Your task to perform on an android device: Open eBay Image 0: 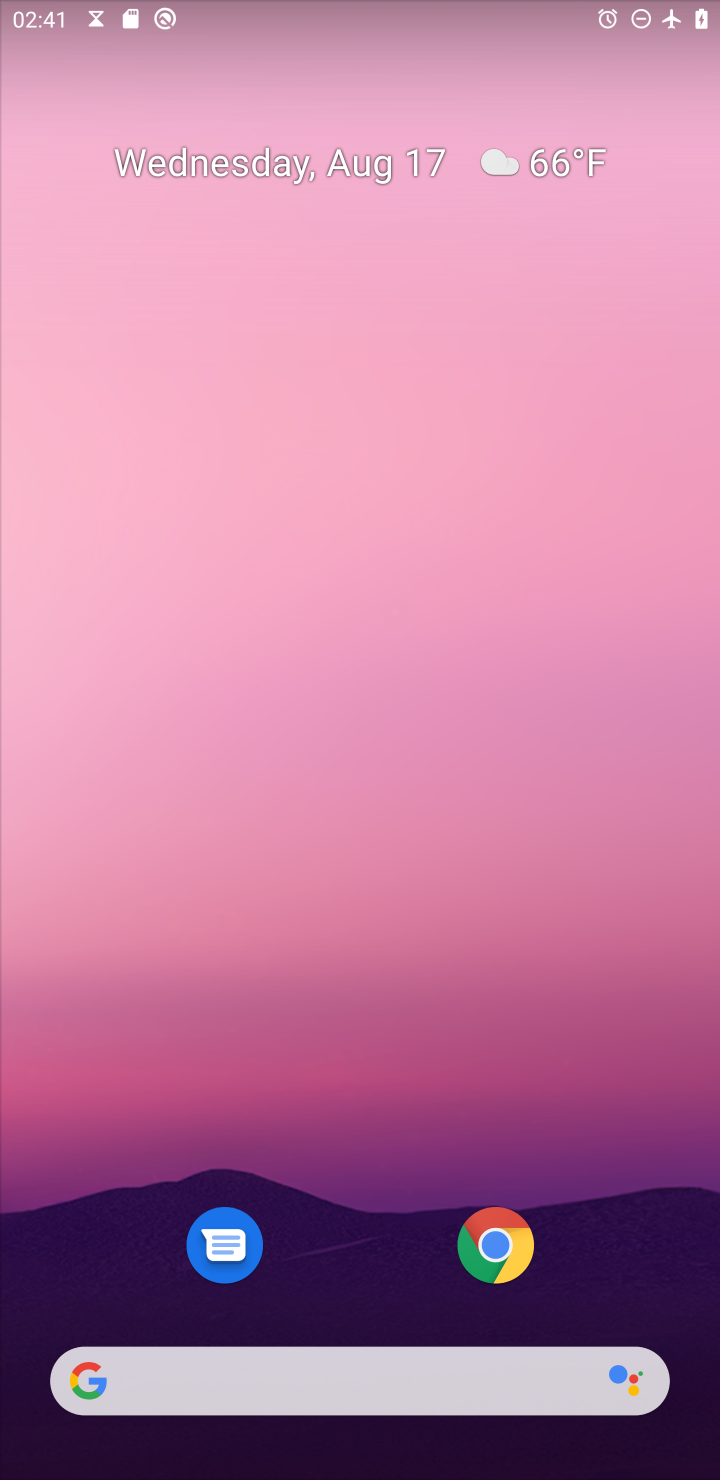
Step 0: click (491, 1240)
Your task to perform on an android device: Open eBay Image 1: 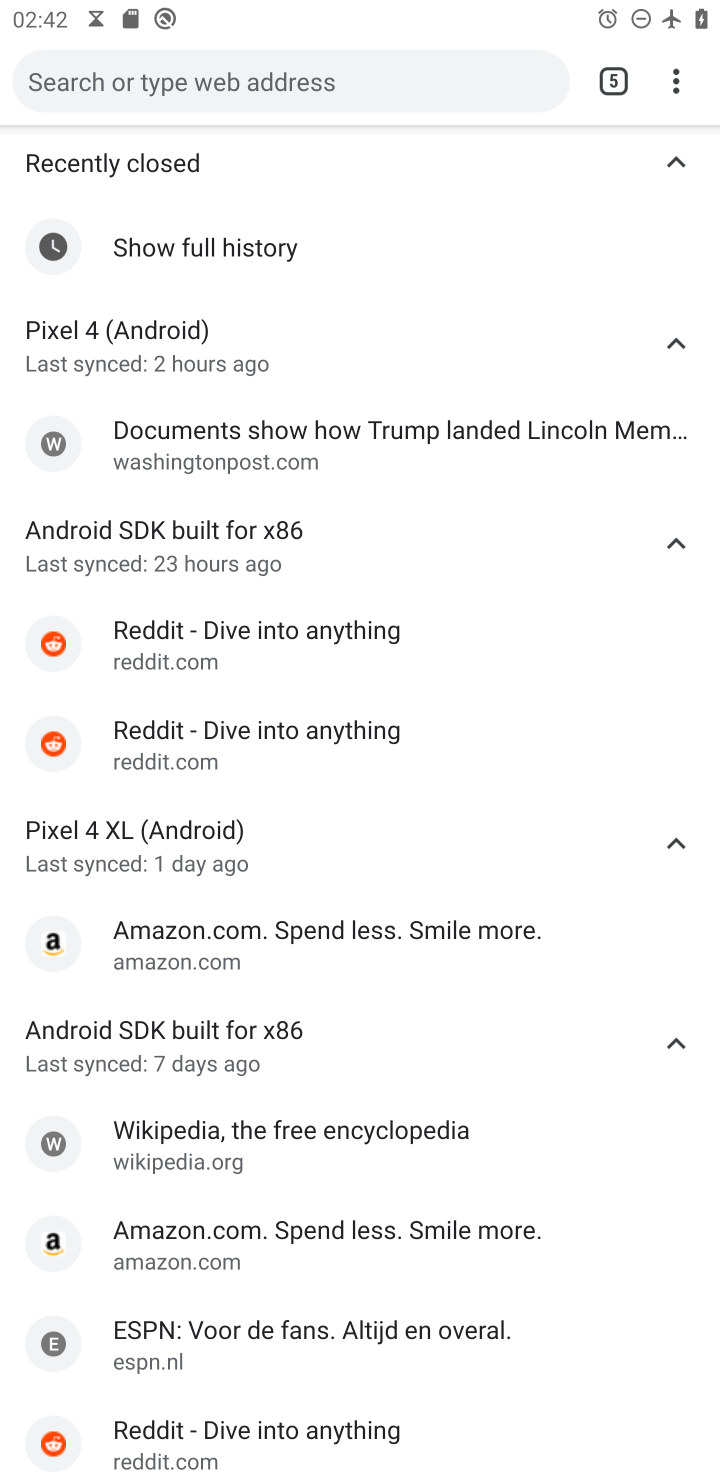
Step 1: click (676, 89)
Your task to perform on an android device: Open eBay Image 2: 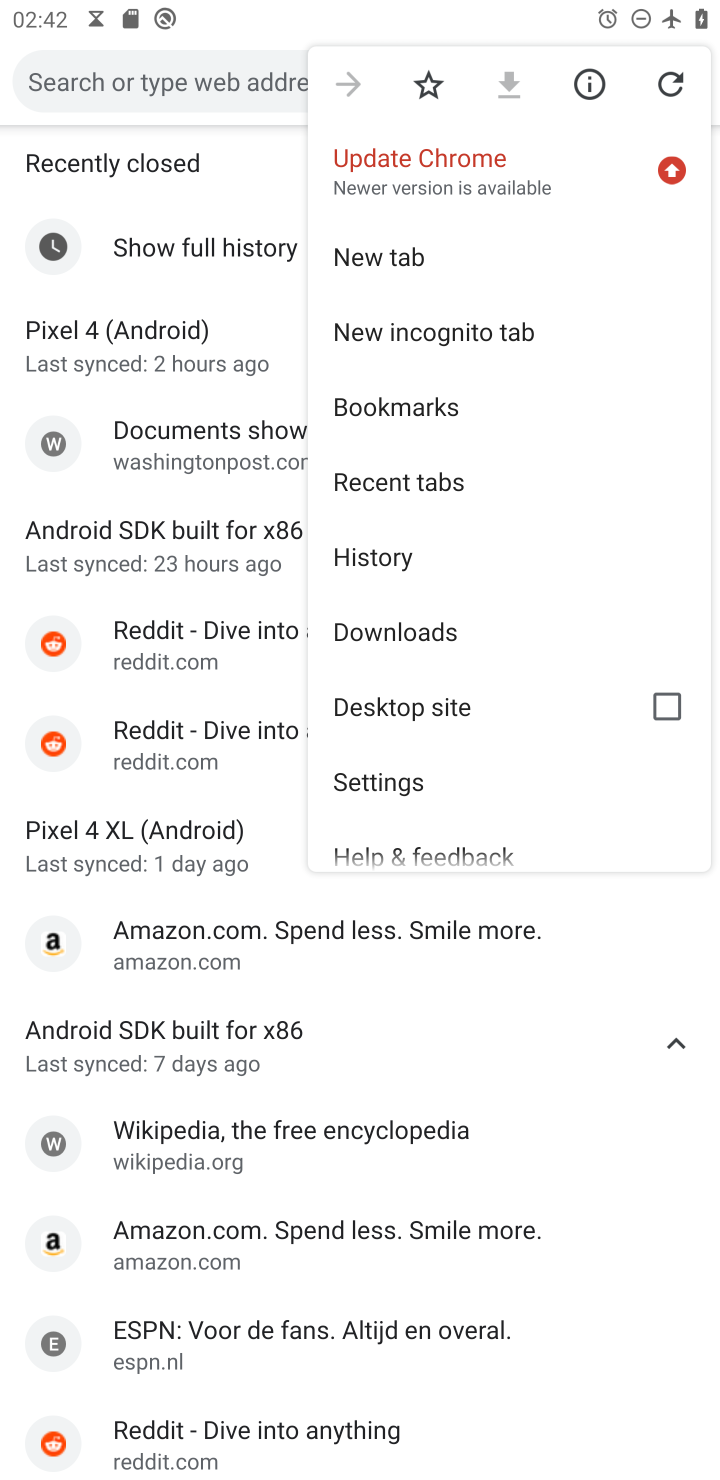
Step 2: drag from (546, 129) to (383, 219)
Your task to perform on an android device: Open eBay Image 3: 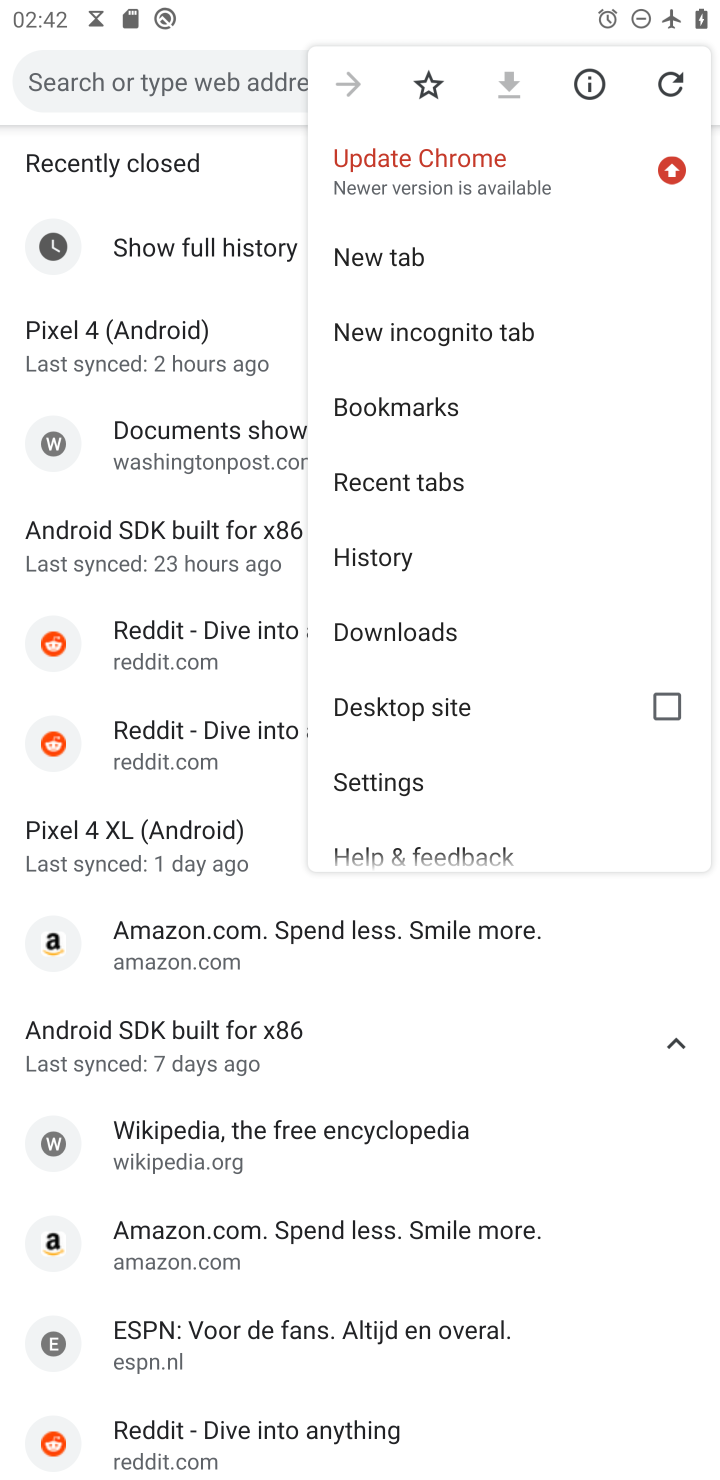
Step 3: click (377, 265)
Your task to perform on an android device: Open eBay Image 4: 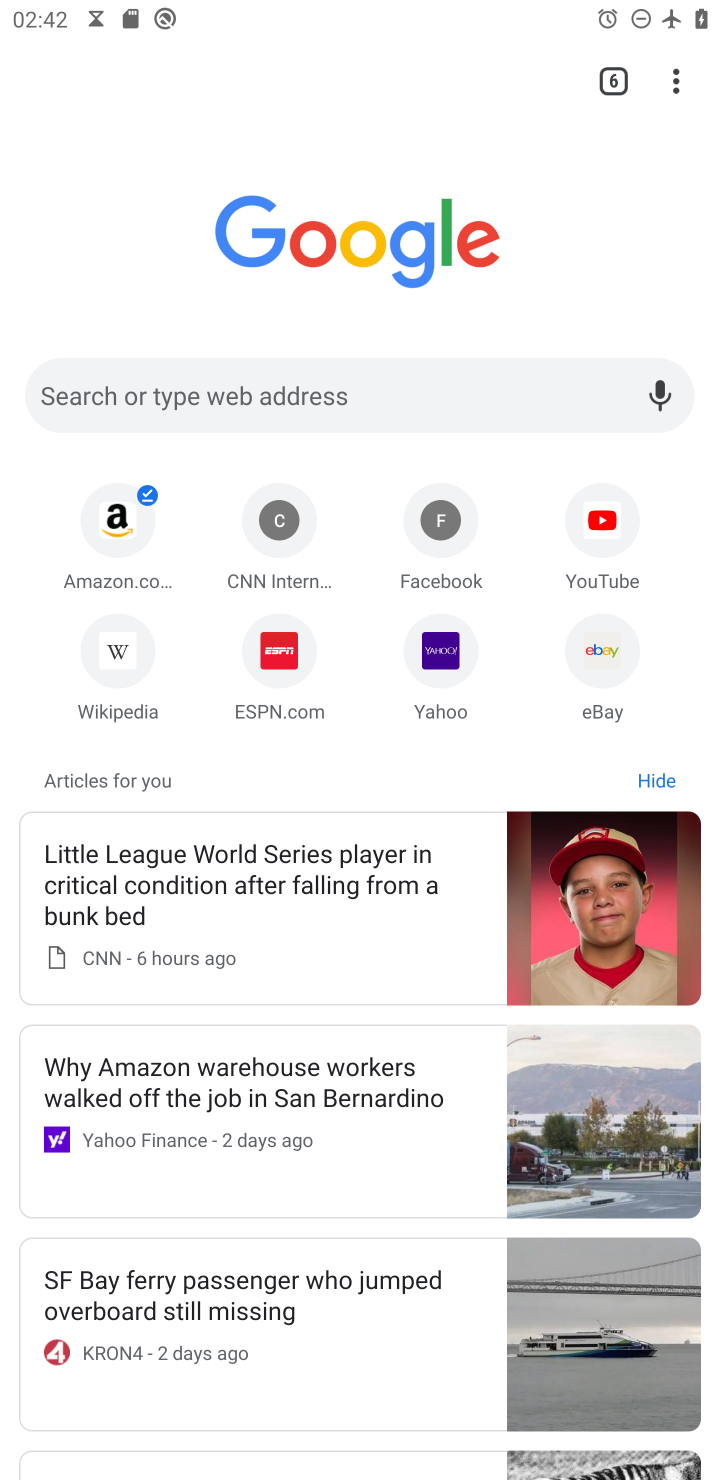
Step 4: click (598, 641)
Your task to perform on an android device: Open eBay Image 5: 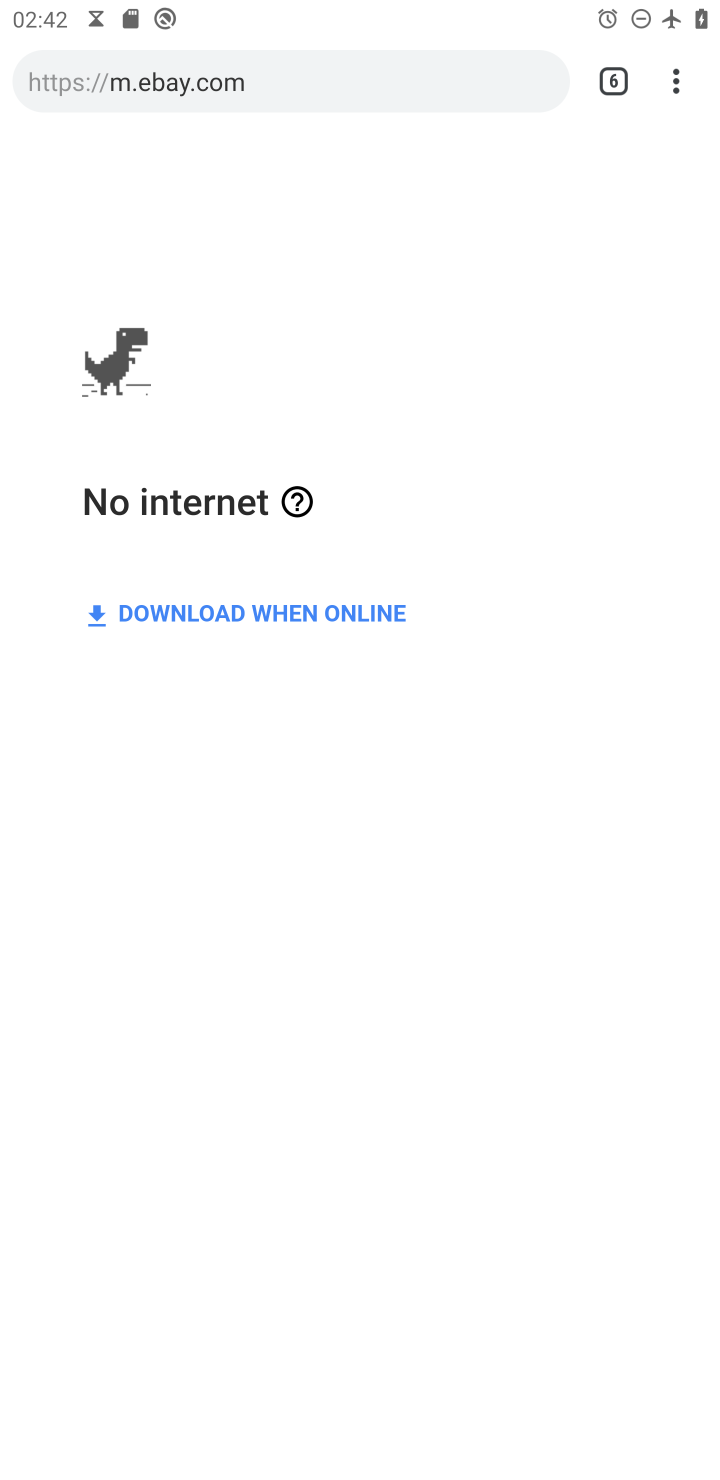
Step 5: task complete